Your task to perform on an android device: toggle javascript in the chrome app Image 0: 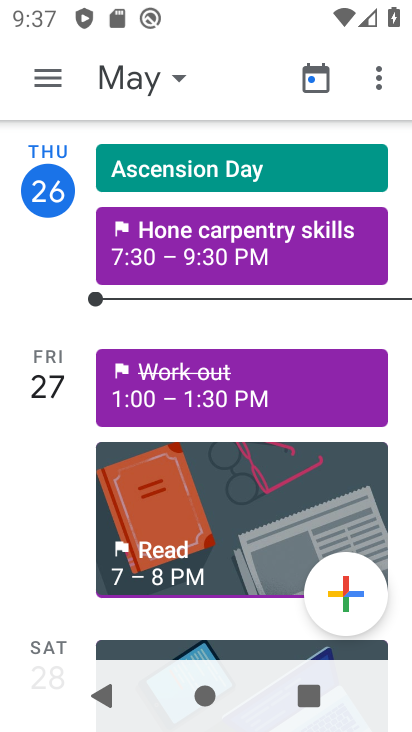
Step 0: press home button
Your task to perform on an android device: toggle javascript in the chrome app Image 1: 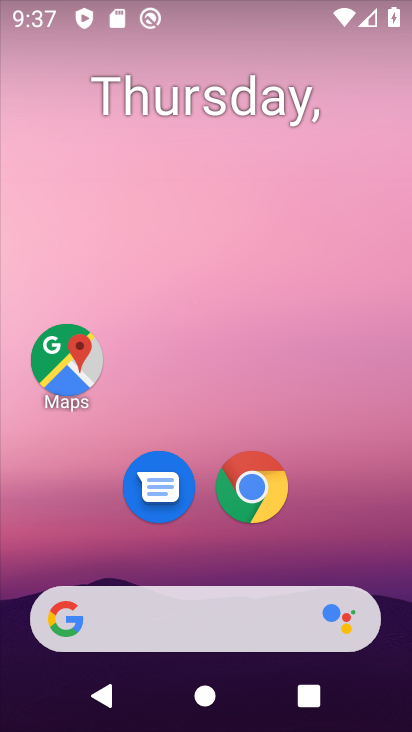
Step 1: click (246, 494)
Your task to perform on an android device: toggle javascript in the chrome app Image 2: 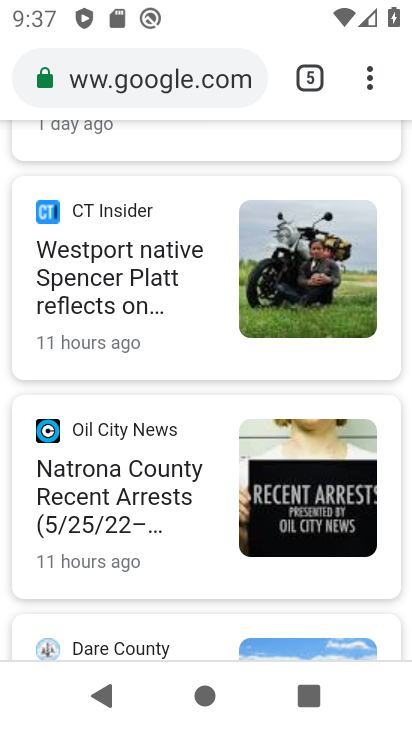
Step 2: click (368, 81)
Your task to perform on an android device: toggle javascript in the chrome app Image 3: 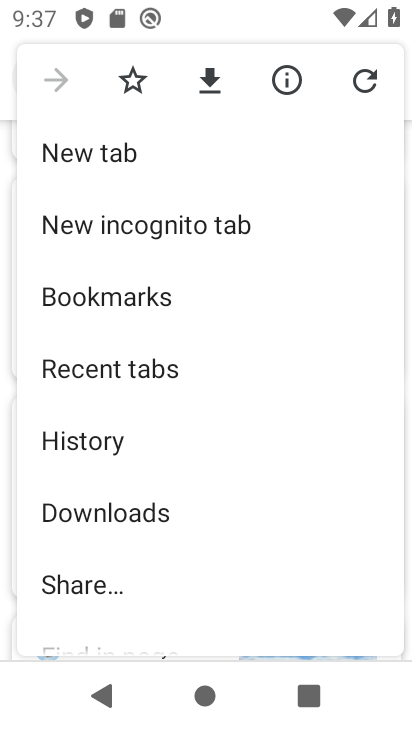
Step 3: drag from (131, 589) to (133, 181)
Your task to perform on an android device: toggle javascript in the chrome app Image 4: 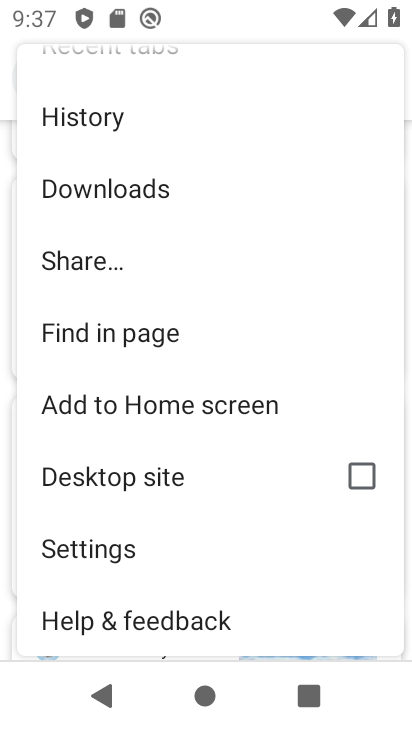
Step 4: click (81, 557)
Your task to perform on an android device: toggle javascript in the chrome app Image 5: 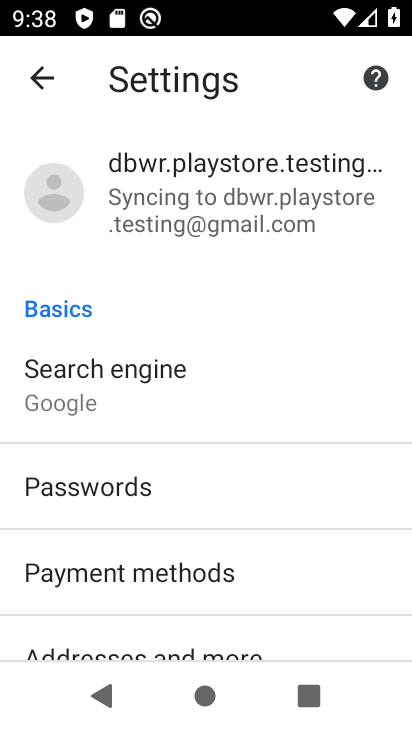
Step 5: drag from (207, 648) to (192, 137)
Your task to perform on an android device: toggle javascript in the chrome app Image 6: 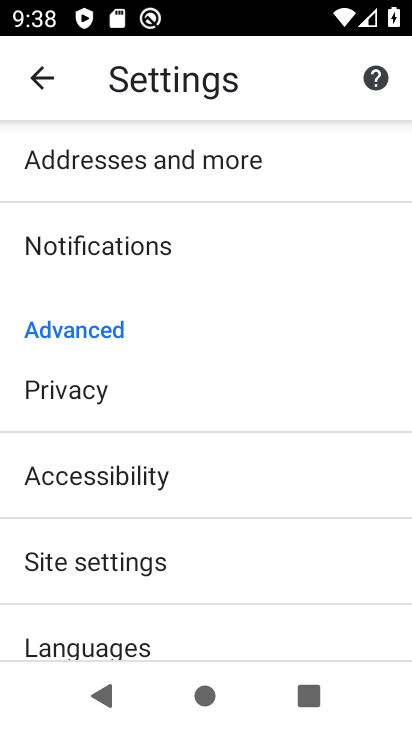
Step 6: click (64, 560)
Your task to perform on an android device: toggle javascript in the chrome app Image 7: 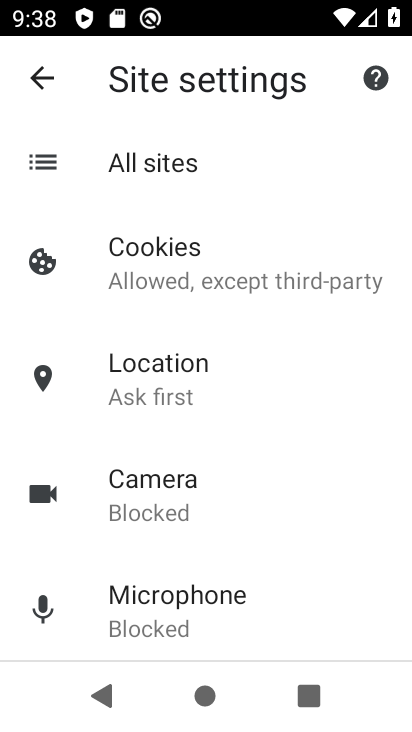
Step 7: drag from (267, 600) to (172, 125)
Your task to perform on an android device: toggle javascript in the chrome app Image 8: 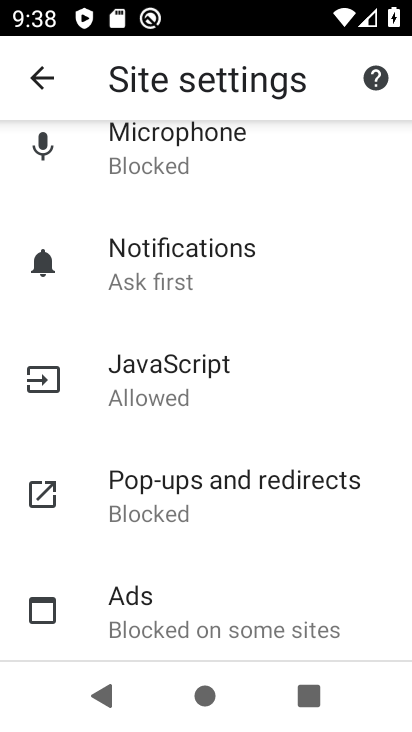
Step 8: drag from (197, 576) to (204, 373)
Your task to perform on an android device: toggle javascript in the chrome app Image 9: 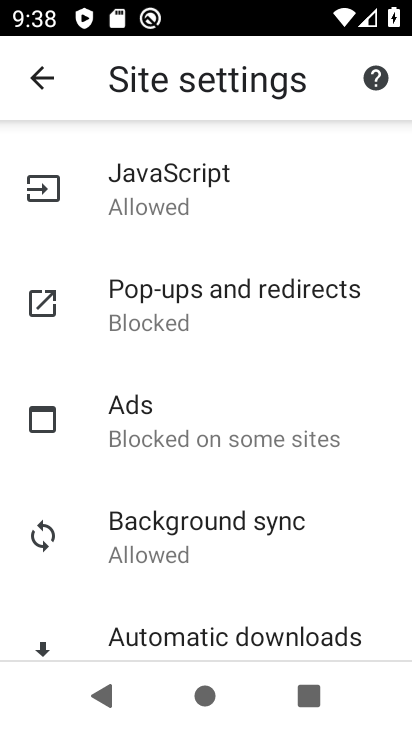
Step 9: click (168, 200)
Your task to perform on an android device: toggle javascript in the chrome app Image 10: 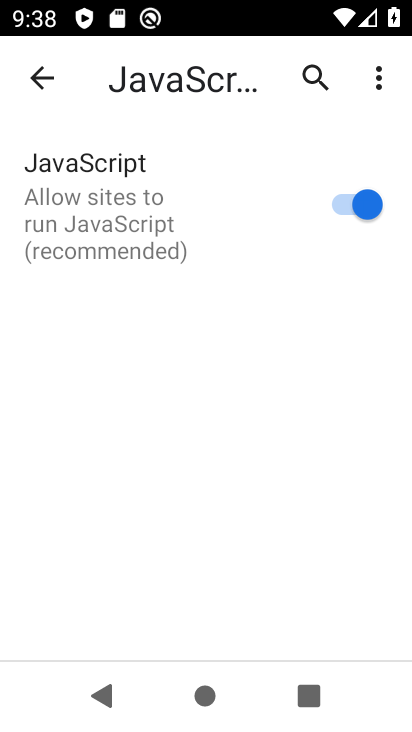
Step 10: click (363, 206)
Your task to perform on an android device: toggle javascript in the chrome app Image 11: 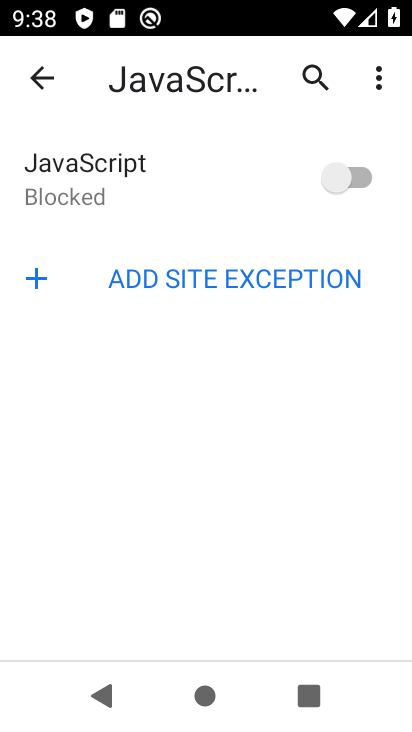
Step 11: task complete